Your task to perform on an android device: Open the stopwatch Image 0: 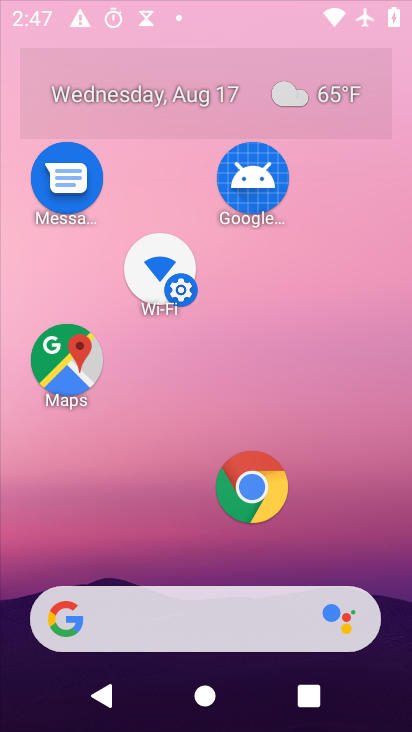
Step 0: press home button
Your task to perform on an android device: Open the stopwatch Image 1: 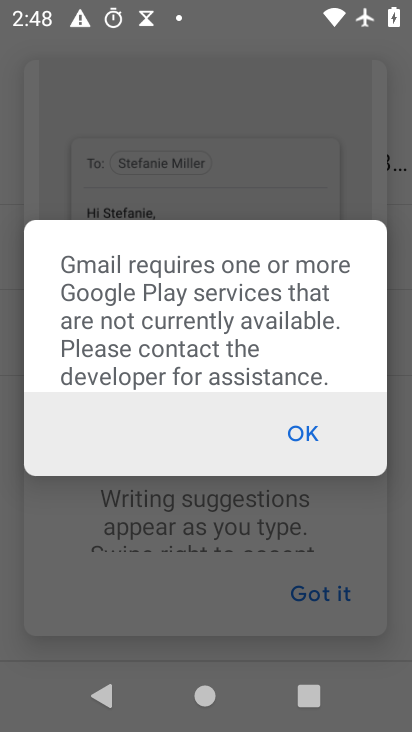
Step 1: press home button
Your task to perform on an android device: Open the stopwatch Image 2: 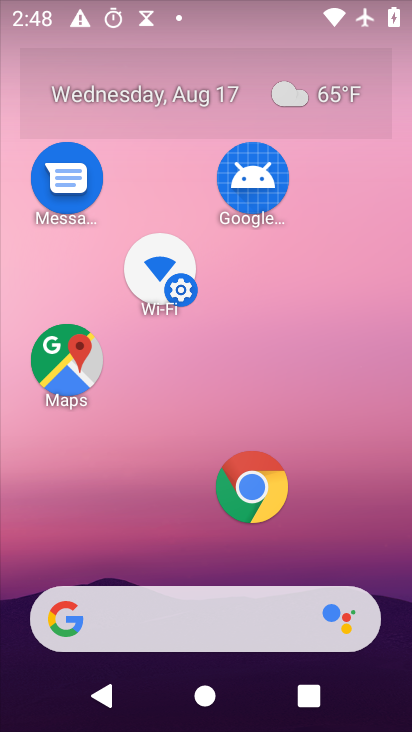
Step 2: drag from (203, 512) to (275, 26)
Your task to perform on an android device: Open the stopwatch Image 3: 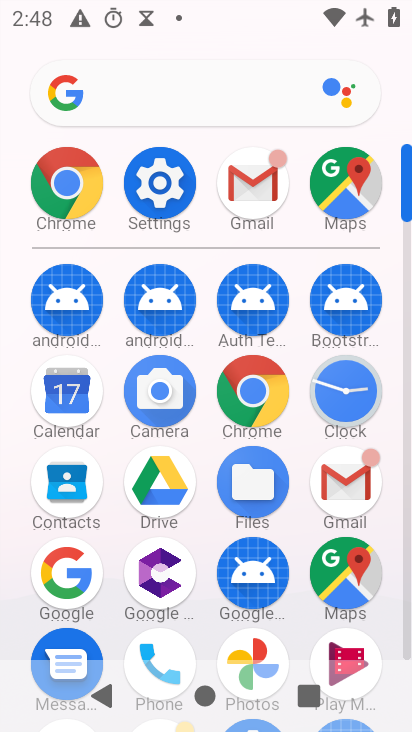
Step 3: click (355, 401)
Your task to perform on an android device: Open the stopwatch Image 4: 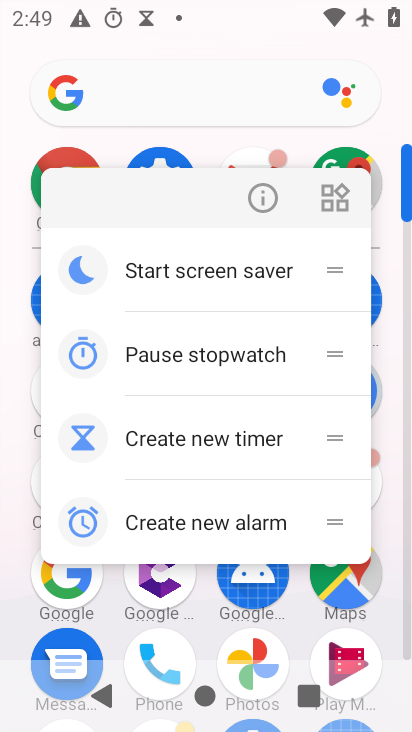
Step 4: press home button
Your task to perform on an android device: Open the stopwatch Image 5: 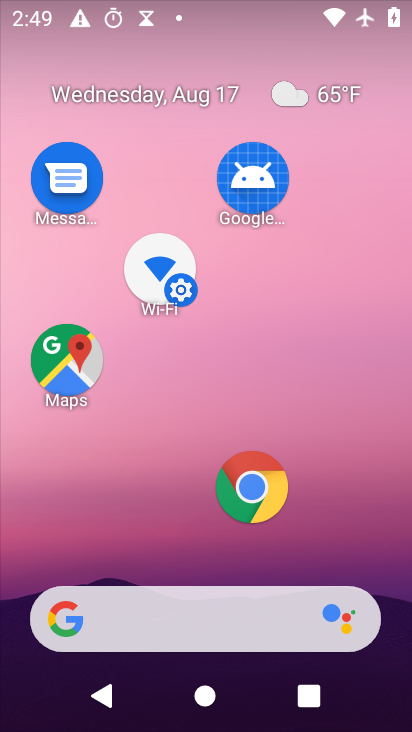
Step 5: drag from (331, 552) to (241, 8)
Your task to perform on an android device: Open the stopwatch Image 6: 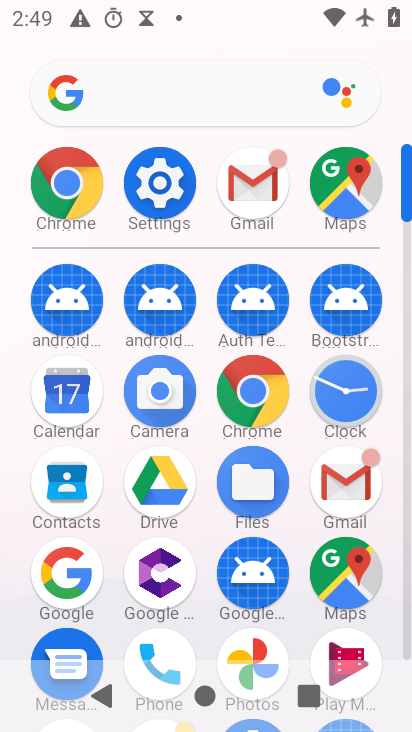
Step 6: click (361, 406)
Your task to perform on an android device: Open the stopwatch Image 7: 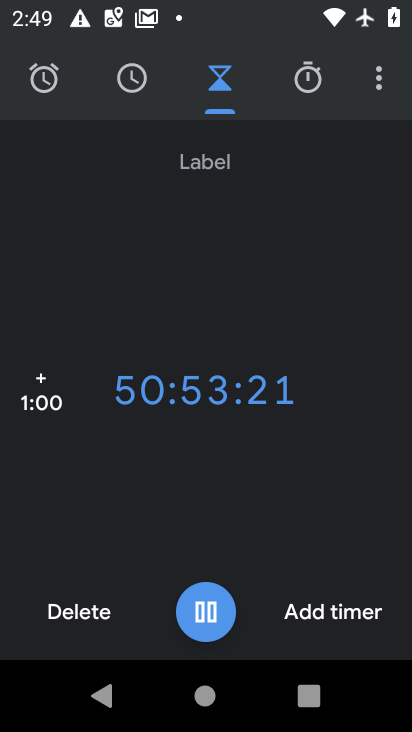
Step 7: click (293, 81)
Your task to perform on an android device: Open the stopwatch Image 8: 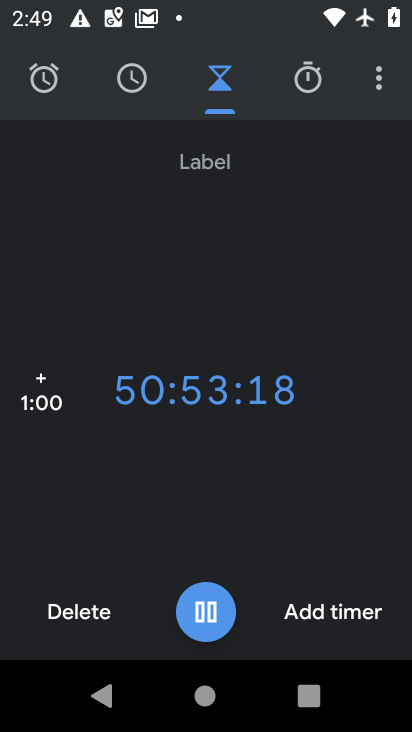
Step 8: click (313, 85)
Your task to perform on an android device: Open the stopwatch Image 9: 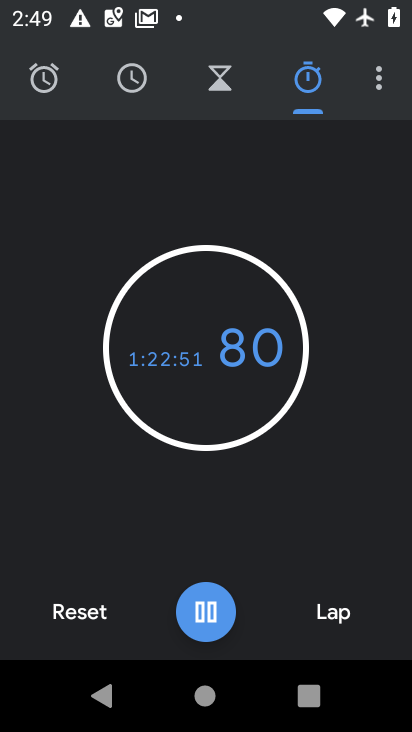
Step 9: task complete